Your task to perform on an android device: open chrome privacy settings Image 0: 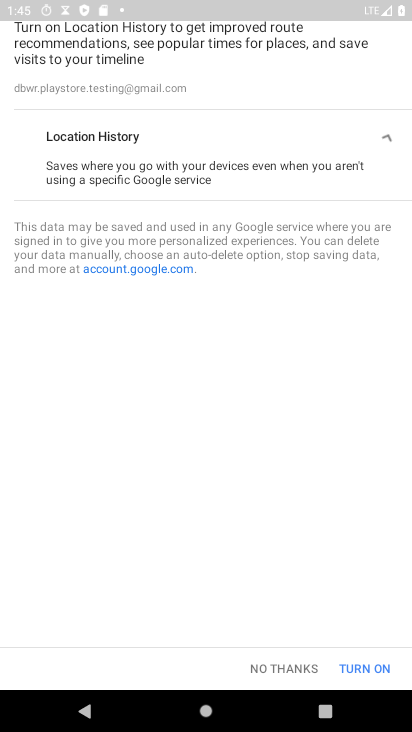
Step 0: press home button
Your task to perform on an android device: open chrome privacy settings Image 1: 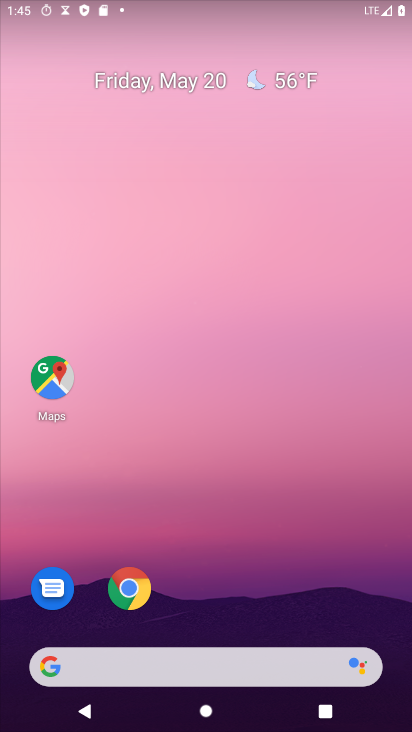
Step 1: drag from (23, 675) to (263, 196)
Your task to perform on an android device: open chrome privacy settings Image 2: 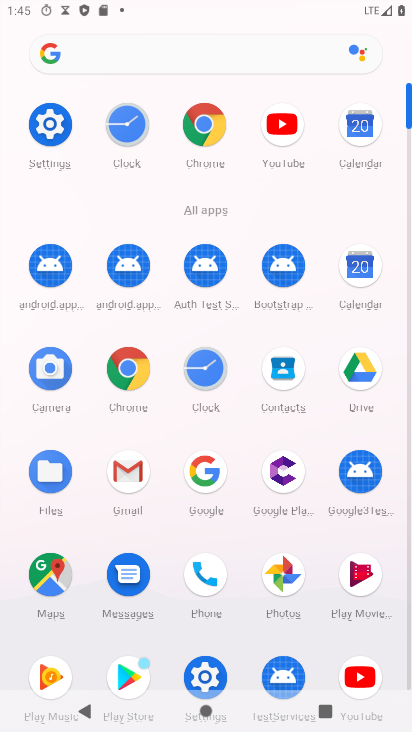
Step 2: click (210, 132)
Your task to perform on an android device: open chrome privacy settings Image 3: 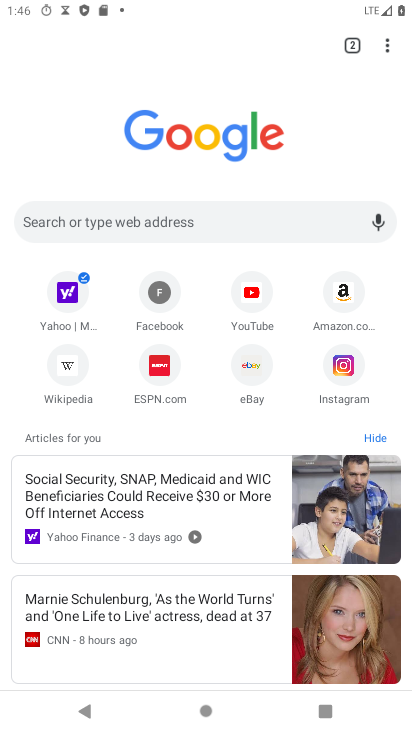
Step 3: click (388, 49)
Your task to perform on an android device: open chrome privacy settings Image 4: 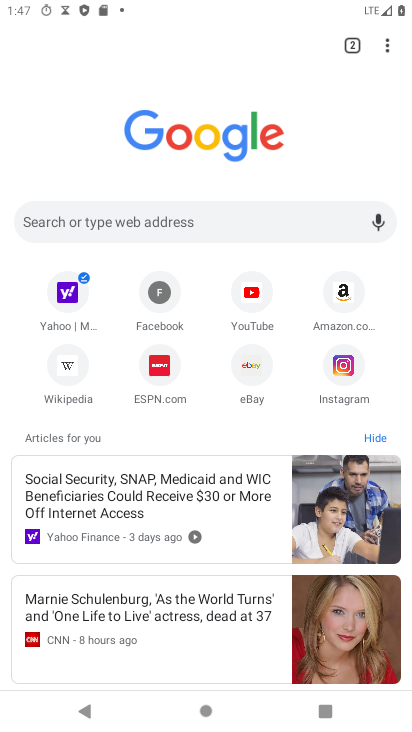
Step 4: click (391, 38)
Your task to perform on an android device: open chrome privacy settings Image 5: 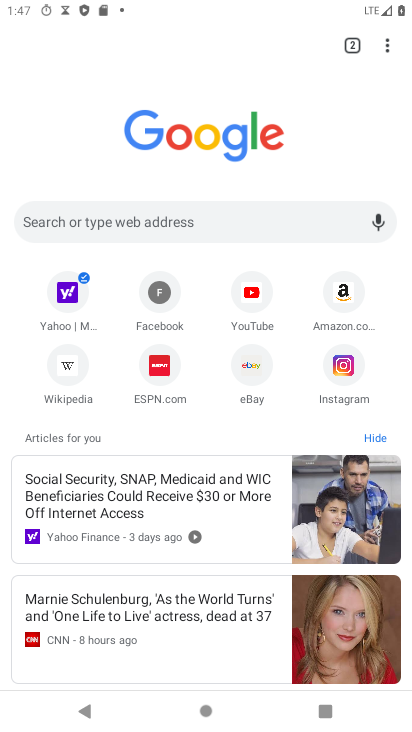
Step 5: click (381, 47)
Your task to perform on an android device: open chrome privacy settings Image 6: 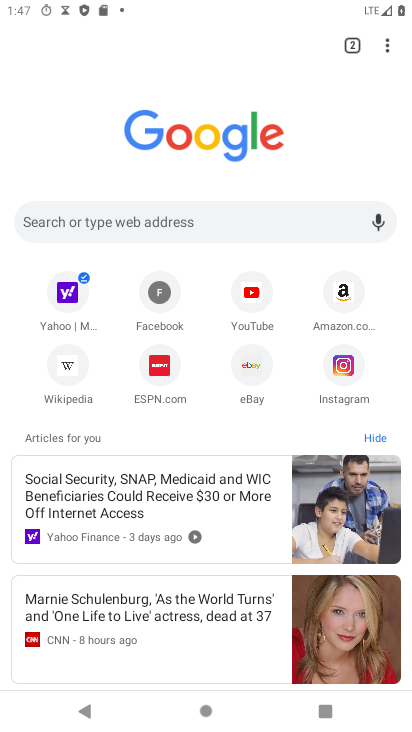
Step 6: click (384, 52)
Your task to perform on an android device: open chrome privacy settings Image 7: 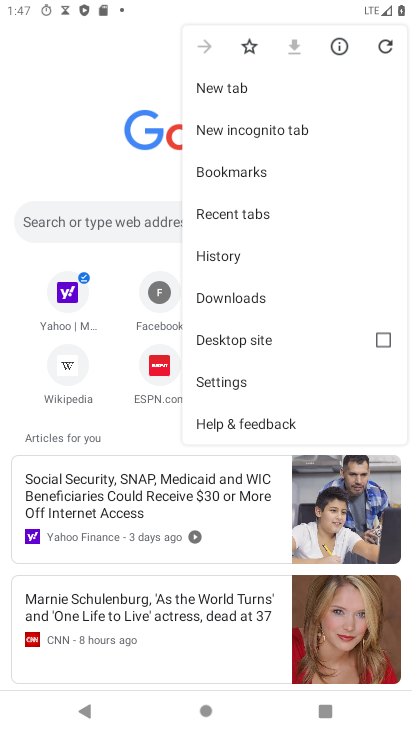
Step 7: click (236, 391)
Your task to perform on an android device: open chrome privacy settings Image 8: 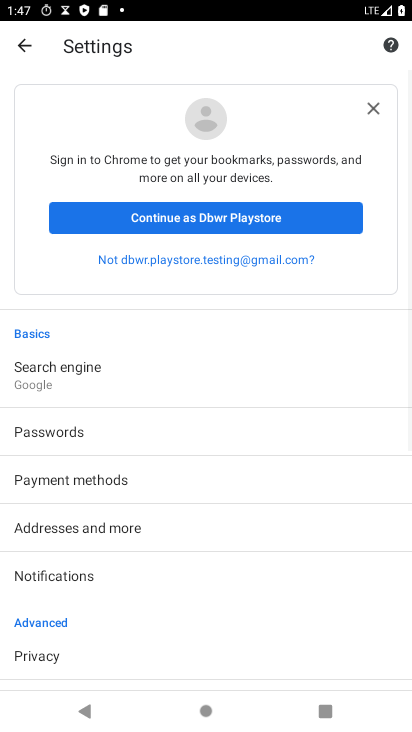
Step 8: click (35, 648)
Your task to perform on an android device: open chrome privacy settings Image 9: 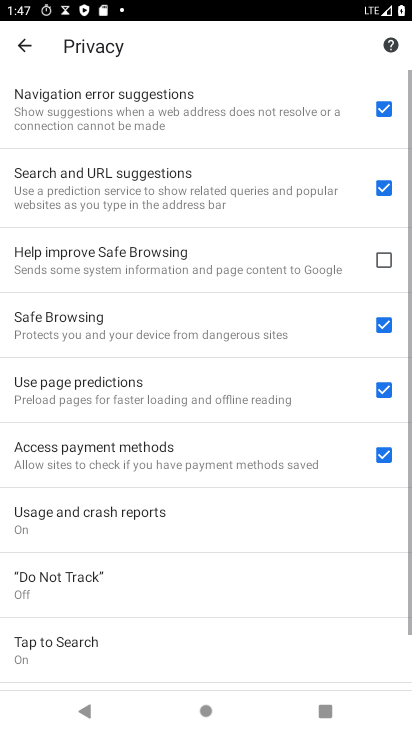
Step 9: task complete